Your task to perform on an android device: Do I have any events this weekend? Image 0: 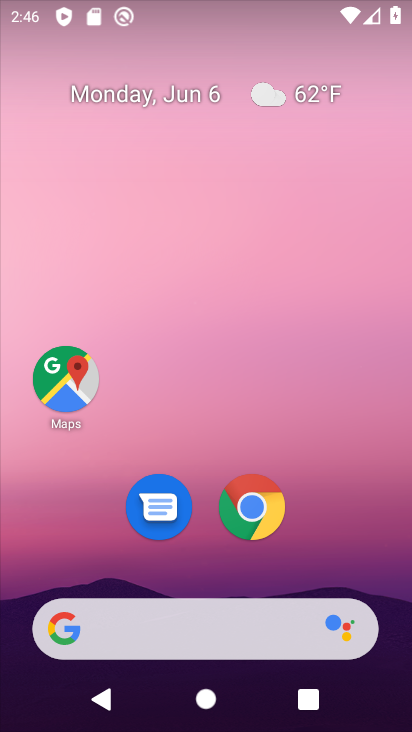
Step 0: press home button
Your task to perform on an android device: Do I have any events this weekend? Image 1: 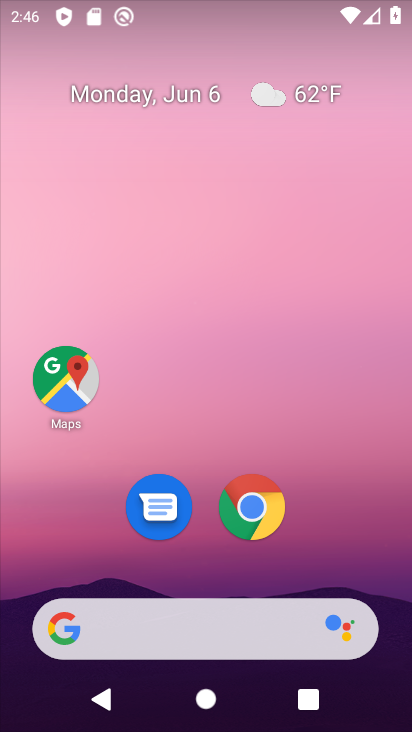
Step 1: drag from (337, 536) to (341, 173)
Your task to perform on an android device: Do I have any events this weekend? Image 2: 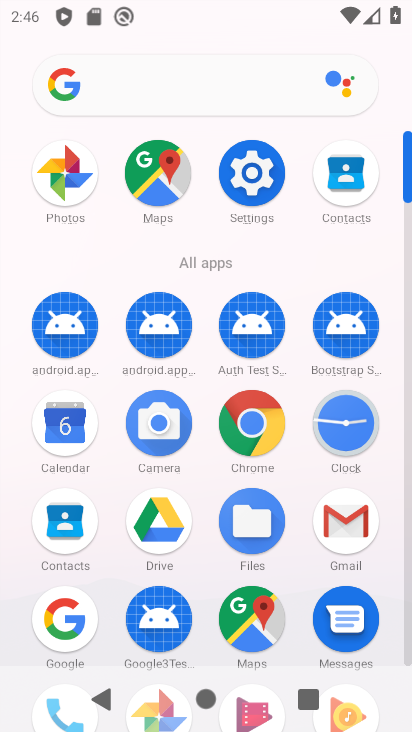
Step 2: click (63, 421)
Your task to perform on an android device: Do I have any events this weekend? Image 3: 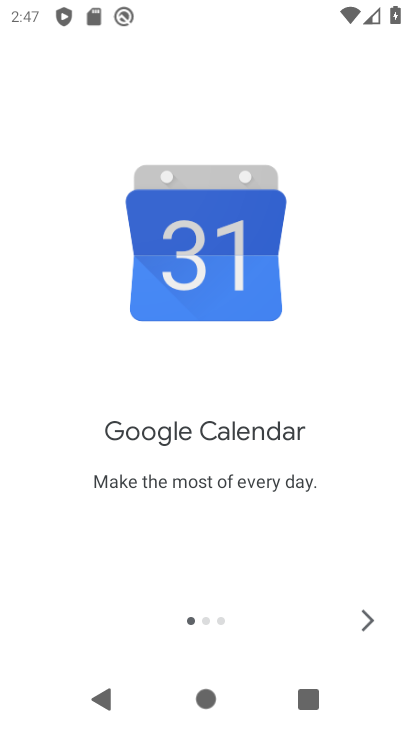
Step 3: click (370, 624)
Your task to perform on an android device: Do I have any events this weekend? Image 4: 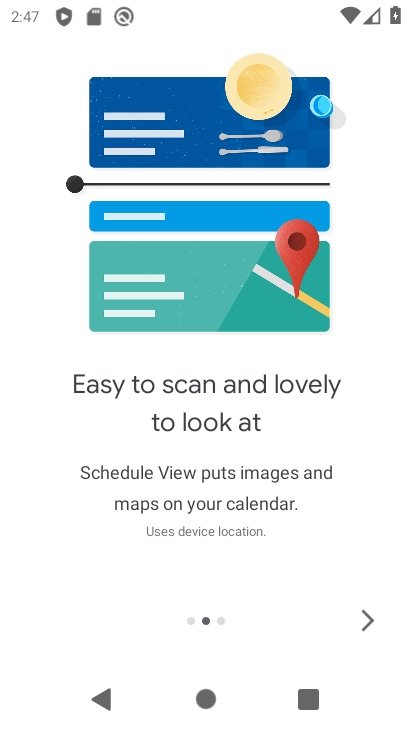
Step 4: click (370, 625)
Your task to perform on an android device: Do I have any events this weekend? Image 5: 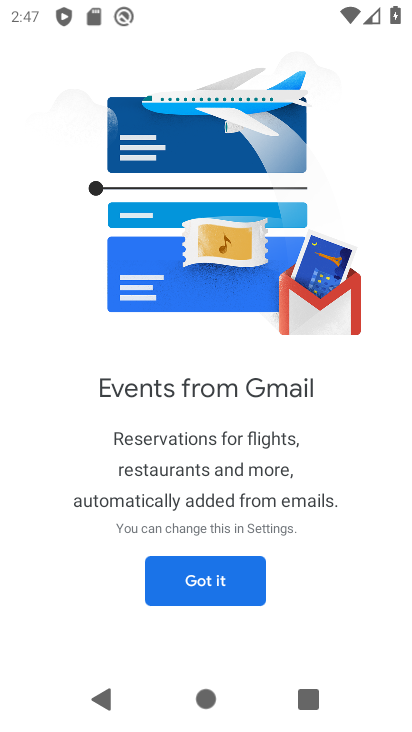
Step 5: click (205, 586)
Your task to perform on an android device: Do I have any events this weekend? Image 6: 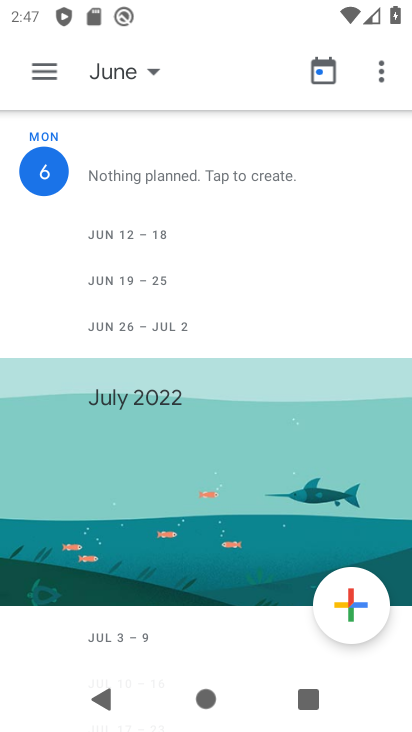
Step 6: click (44, 73)
Your task to perform on an android device: Do I have any events this weekend? Image 7: 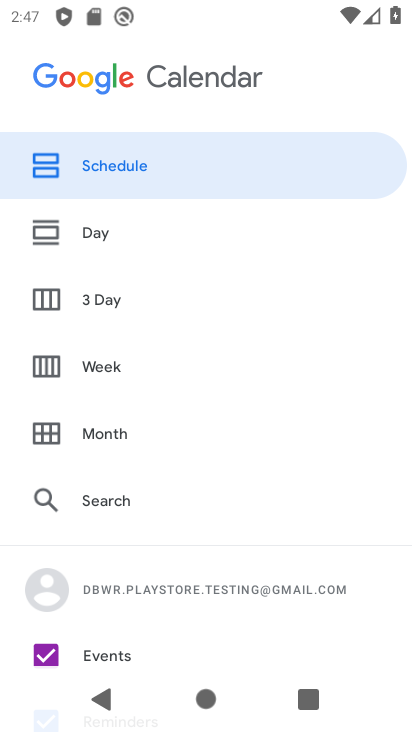
Step 7: drag from (252, 531) to (219, 574)
Your task to perform on an android device: Do I have any events this weekend? Image 8: 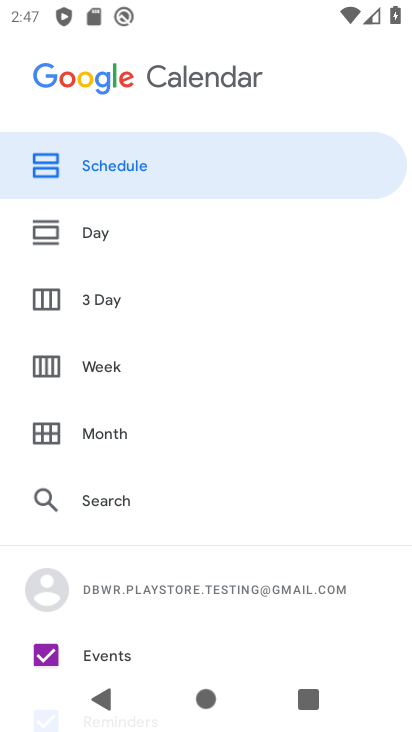
Step 8: click (87, 168)
Your task to perform on an android device: Do I have any events this weekend? Image 9: 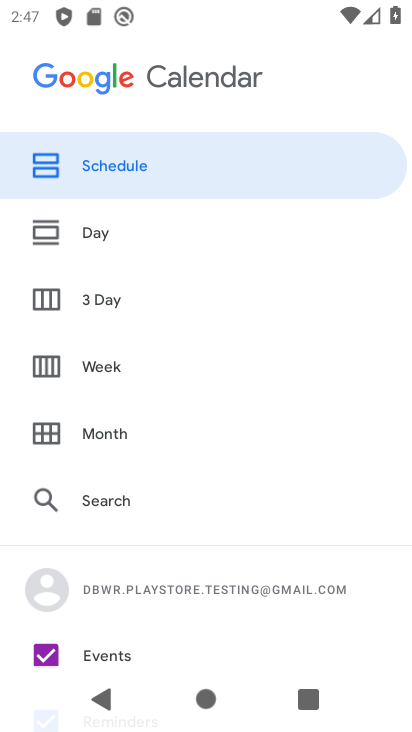
Step 9: click (109, 167)
Your task to perform on an android device: Do I have any events this weekend? Image 10: 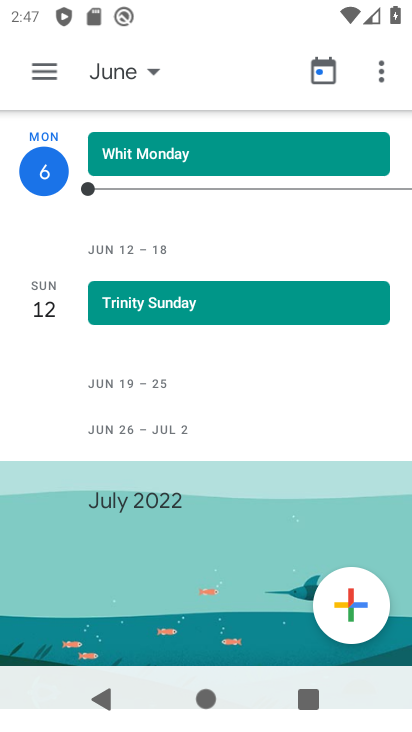
Step 10: task complete